Your task to perform on an android device: Show me popular games on the Play Store Image 0: 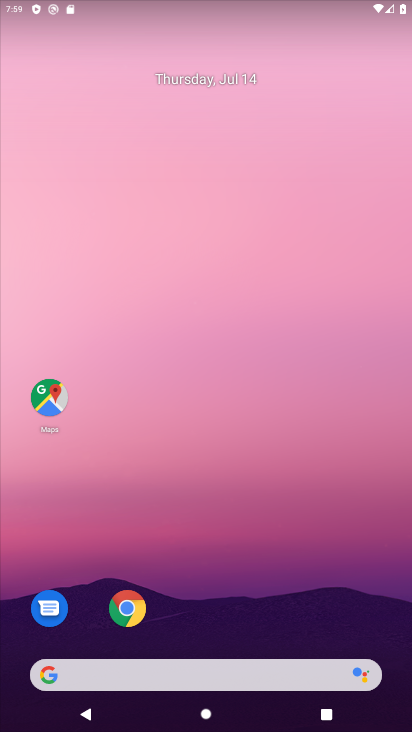
Step 0: drag from (242, 538) to (161, 25)
Your task to perform on an android device: Show me popular games on the Play Store Image 1: 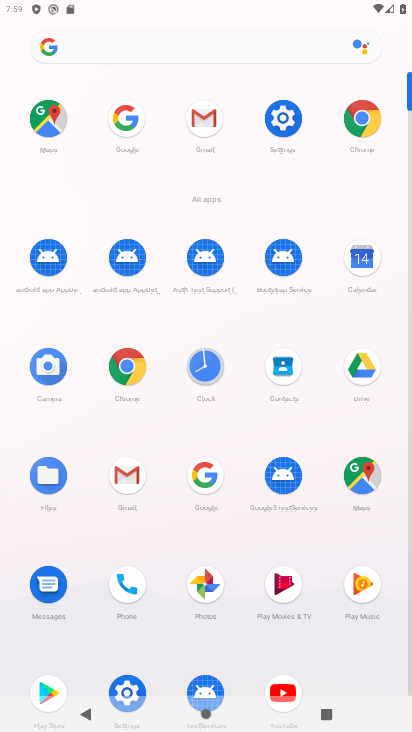
Step 1: click (50, 683)
Your task to perform on an android device: Show me popular games on the Play Store Image 2: 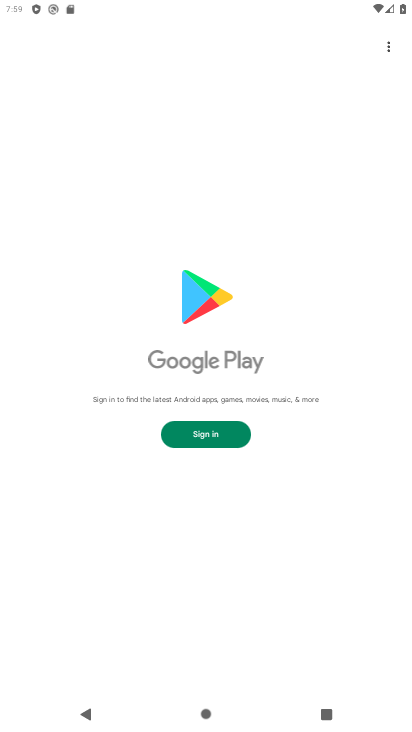
Step 2: click (190, 433)
Your task to perform on an android device: Show me popular games on the Play Store Image 3: 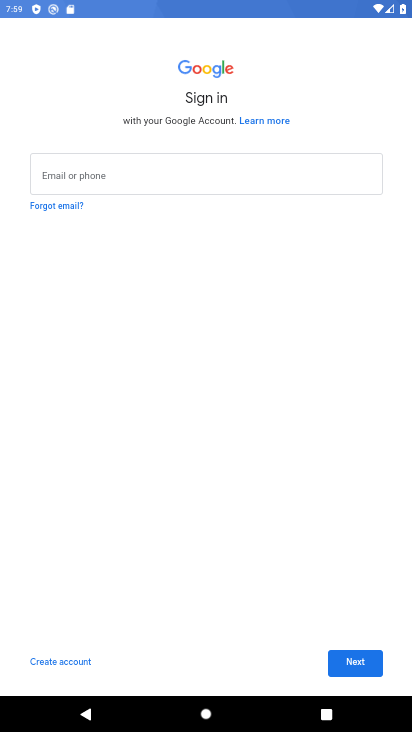
Step 3: click (346, 661)
Your task to perform on an android device: Show me popular games on the Play Store Image 4: 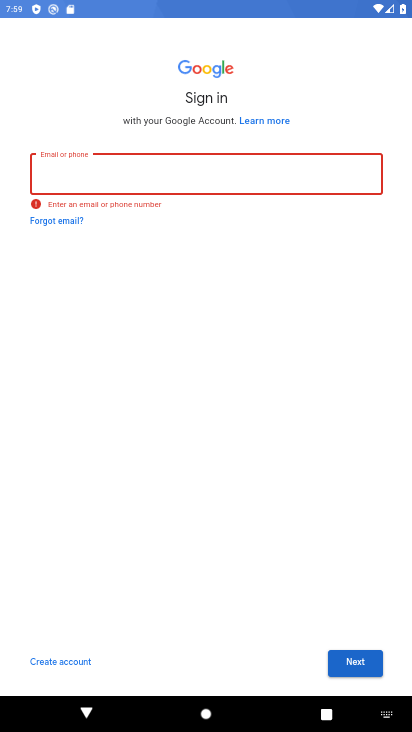
Step 4: task complete